Your task to perform on an android device: Check the news Image 0: 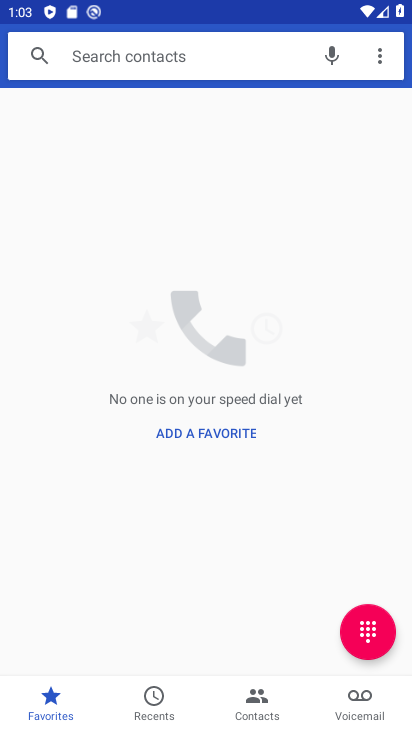
Step 0: press home button
Your task to perform on an android device: Check the news Image 1: 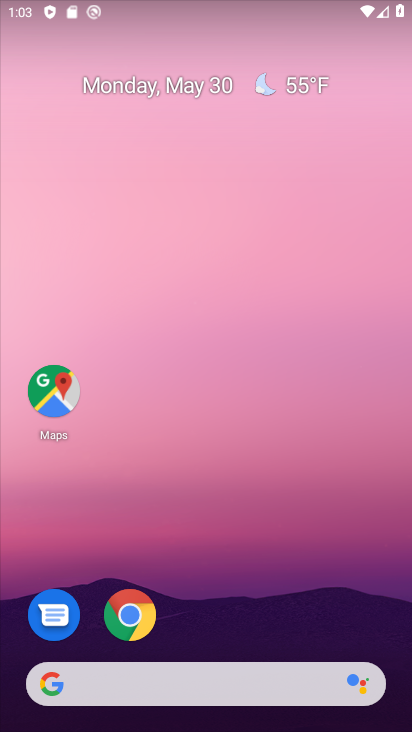
Step 1: task complete